Your task to perform on an android device: turn off location Image 0: 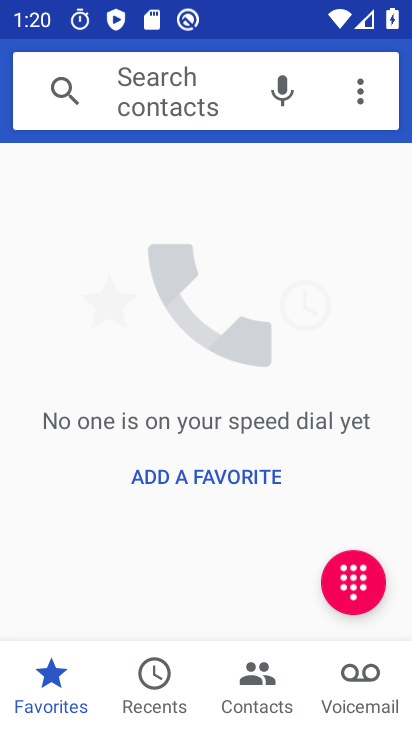
Step 0: press home button
Your task to perform on an android device: turn off location Image 1: 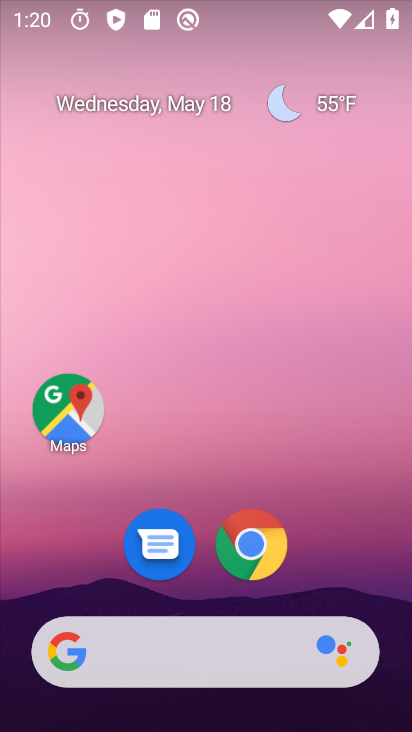
Step 1: drag from (309, 554) to (234, 111)
Your task to perform on an android device: turn off location Image 2: 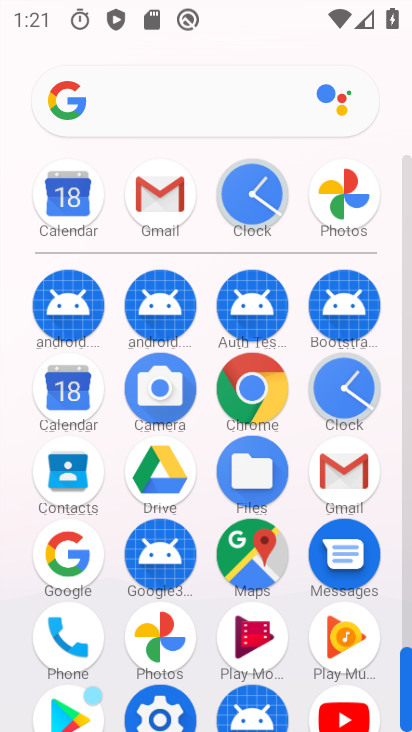
Step 2: click (168, 708)
Your task to perform on an android device: turn off location Image 3: 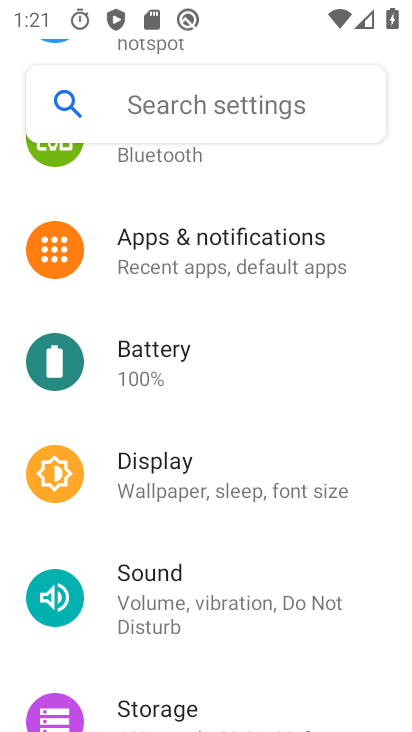
Step 3: drag from (333, 625) to (268, 293)
Your task to perform on an android device: turn off location Image 4: 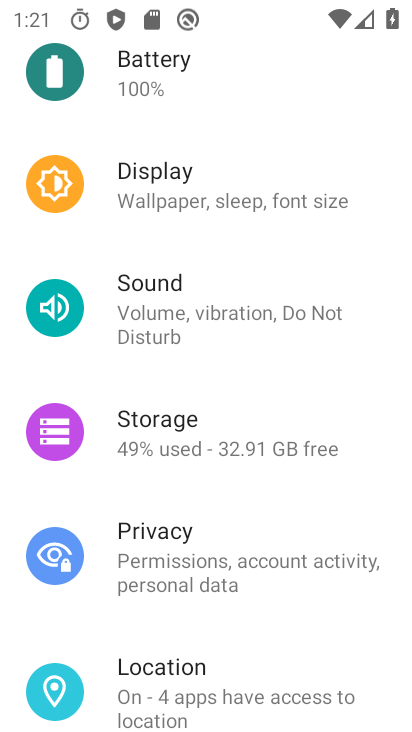
Step 4: click (205, 686)
Your task to perform on an android device: turn off location Image 5: 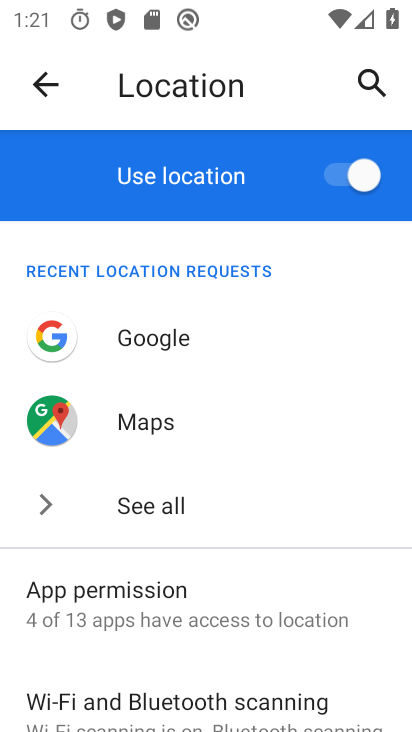
Step 5: task complete